Your task to perform on an android device: Clear the cart on newegg. Search for "logitech g502" on newegg, select the first entry, add it to the cart, then select checkout. Image 0: 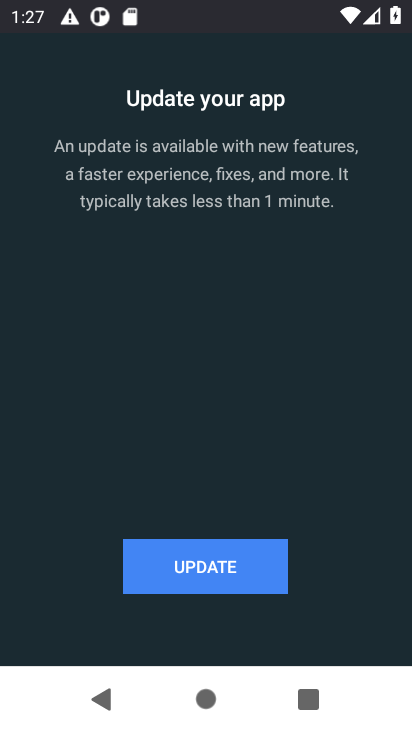
Step 0: press home button
Your task to perform on an android device: Clear the cart on newegg. Search for "logitech g502" on newegg, select the first entry, add it to the cart, then select checkout. Image 1: 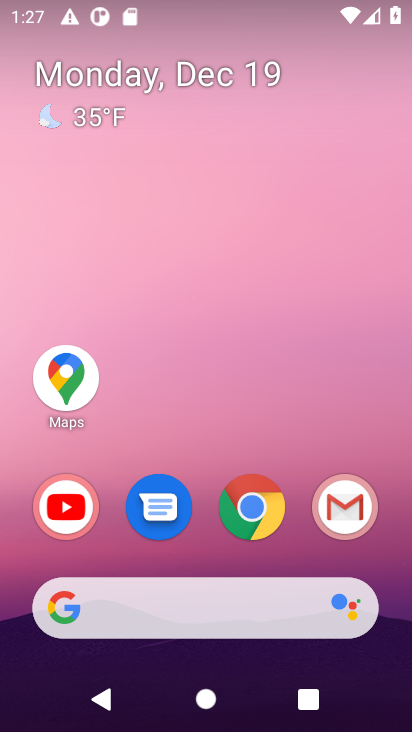
Step 1: click (252, 515)
Your task to perform on an android device: Clear the cart on newegg. Search for "logitech g502" on newegg, select the first entry, add it to the cart, then select checkout. Image 2: 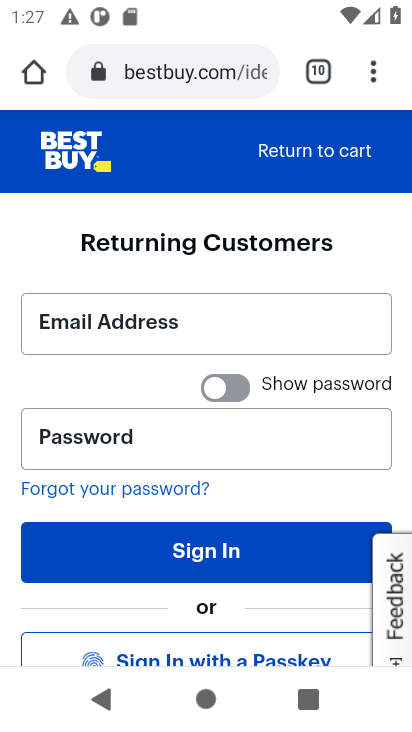
Step 2: click (189, 77)
Your task to perform on an android device: Clear the cart on newegg. Search for "logitech g502" on newegg, select the first entry, add it to the cart, then select checkout. Image 3: 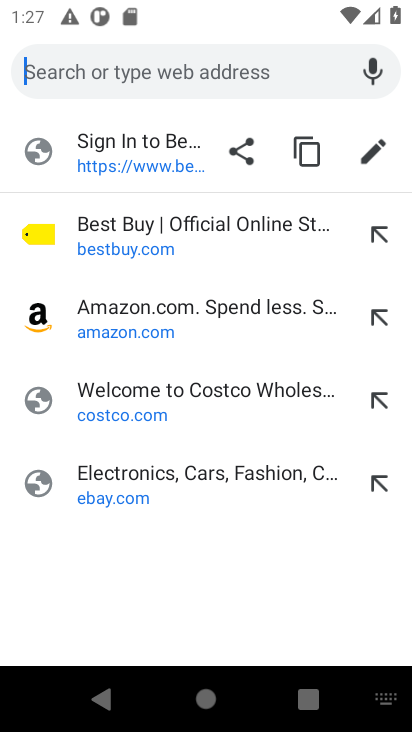
Step 3: type "newegg.com"
Your task to perform on an android device: Clear the cart on newegg. Search for "logitech g502" on newegg, select the first entry, add it to the cart, then select checkout. Image 4: 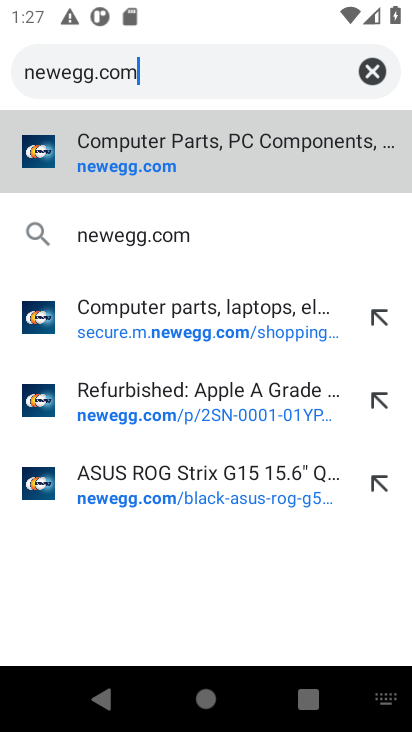
Step 4: click (104, 172)
Your task to perform on an android device: Clear the cart on newegg. Search for "logitech g502" on newegg, select the first entry, add it to the cart, then select checkout. Image 5: 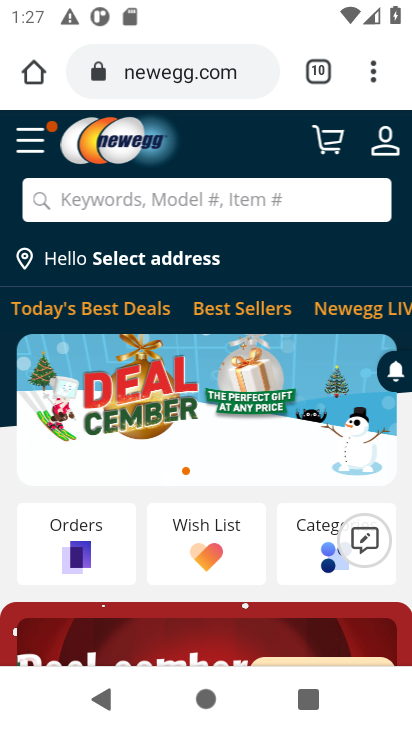
Step 5: click (324, 145)
Your task to perform on an android device: Clear the cart on newegg. Search for "logitech g502" on newegg, select the first entry, add it to the cart, then select checkout. Image 6: 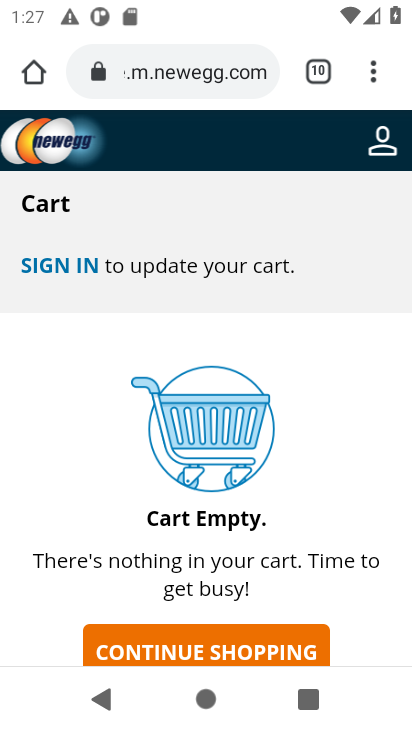
Step 6: click (167, 647)
Your task to perform on an android device: Clear the cart on newegg. Search for "logitech g502" on newegg, select the first entry, add it to the cart, then select checkout. Image 7: 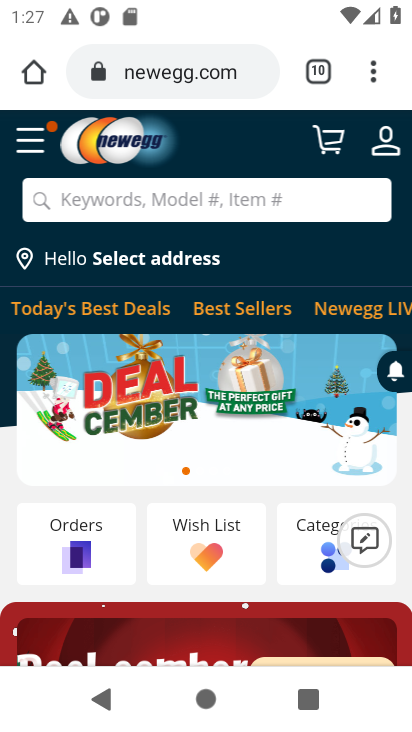
Step 7: click (144, 209)
Your task to perform on an android device: Clear the cart on newegg. Search for "logitech g502" on newegg, select the first entry, add it to the cart, then select checkout. Image 8: 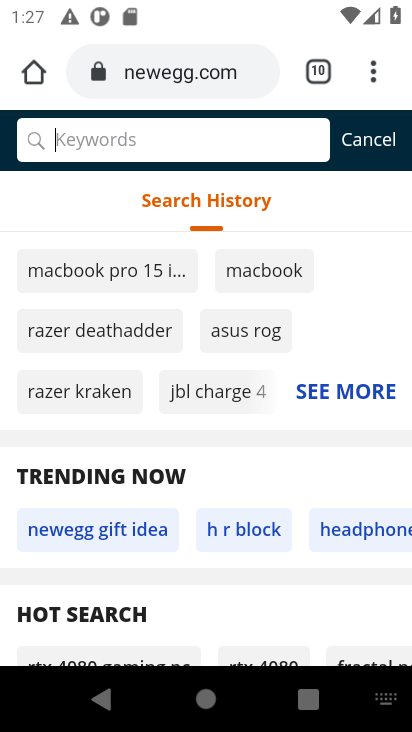
Step 8: type "logitech g502"
Your task to perform on an android device: Clear the cart on newegg. Search for "logitech g502" on newegg, select the first entry, add it to the cart, then select checkout. Image 9: 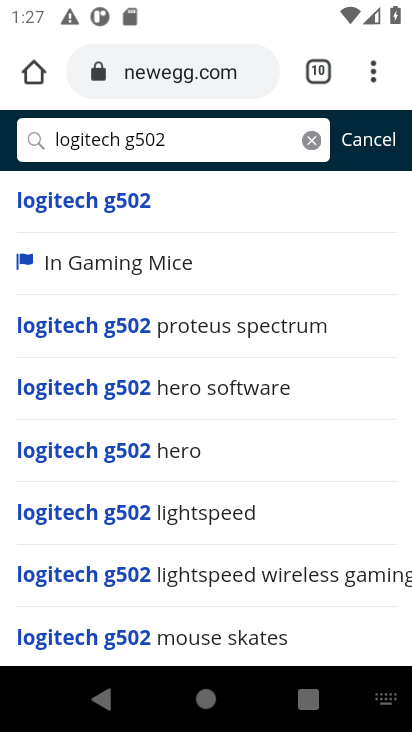
Step 9: click (123, 198)
Your task to perform on an android device: Clear the cart on newegg. Search for "logitech g502" on newegg, select the first entry, add it to the cart, then select checkout. Image 10: 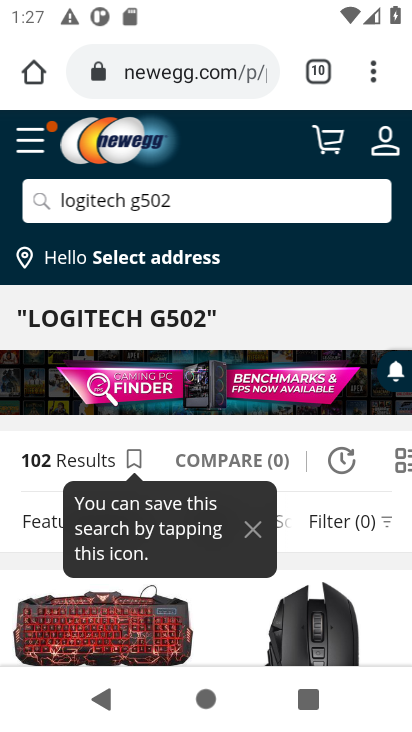
Step 10: drag from (144, 471) to (136, 192)
Your task to perform on an android device: Clear the cart on newegg. Search for "logitech g502" on newegg, select the first entry, add it to the cart, then select checkout. Image 11: 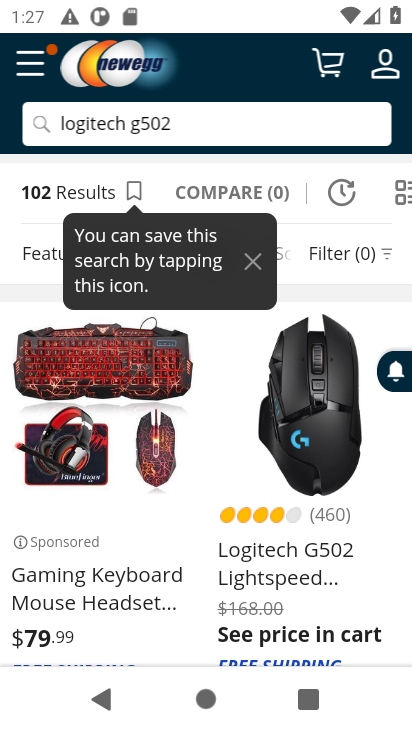
Step 11: drag from (152, 393) to (151, 202)
Your task to perform on an android device: Clear the cart on newegg. Search for "logitech g502" on newegg, select the first entry, add it to the cart, then select checkout. Image 12: 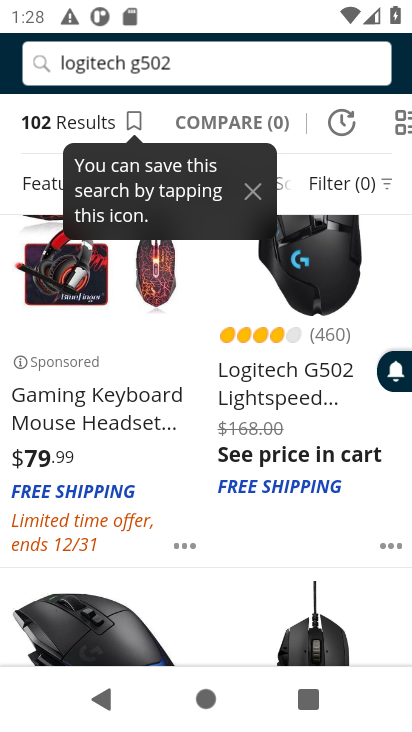
Step 12: click (110, 425)
Your task to perform on an android device: Clear the cart on newegg. Search for "logitech g502" on newegg, select the first entry, add it to the cart, then select checkout. Image 13: 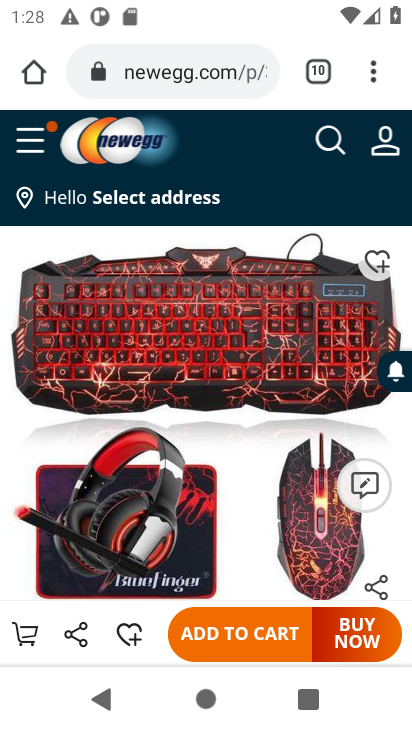
Step 13: task complete